Your task to perform on an android device: open app "Messages" (install if not already installed) and enter user name: "Hersey@inbox.com" and password: "facings" Image 0: 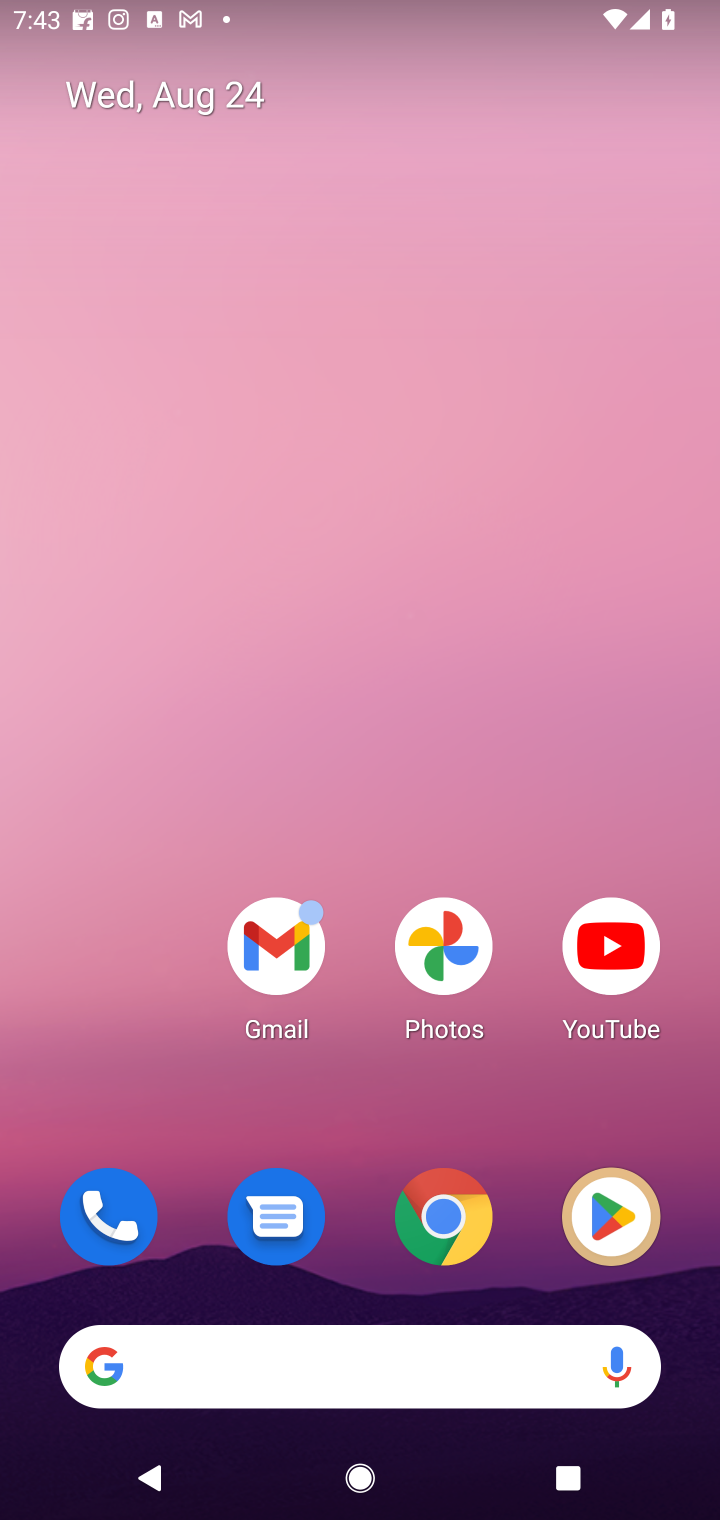
Step 0: click (618, 1189)
Your task to perform on an android device: open app "Messages" (install if not already installed) and enter user name: "Hersey@inbox.com" and password: "facings" Image 1: 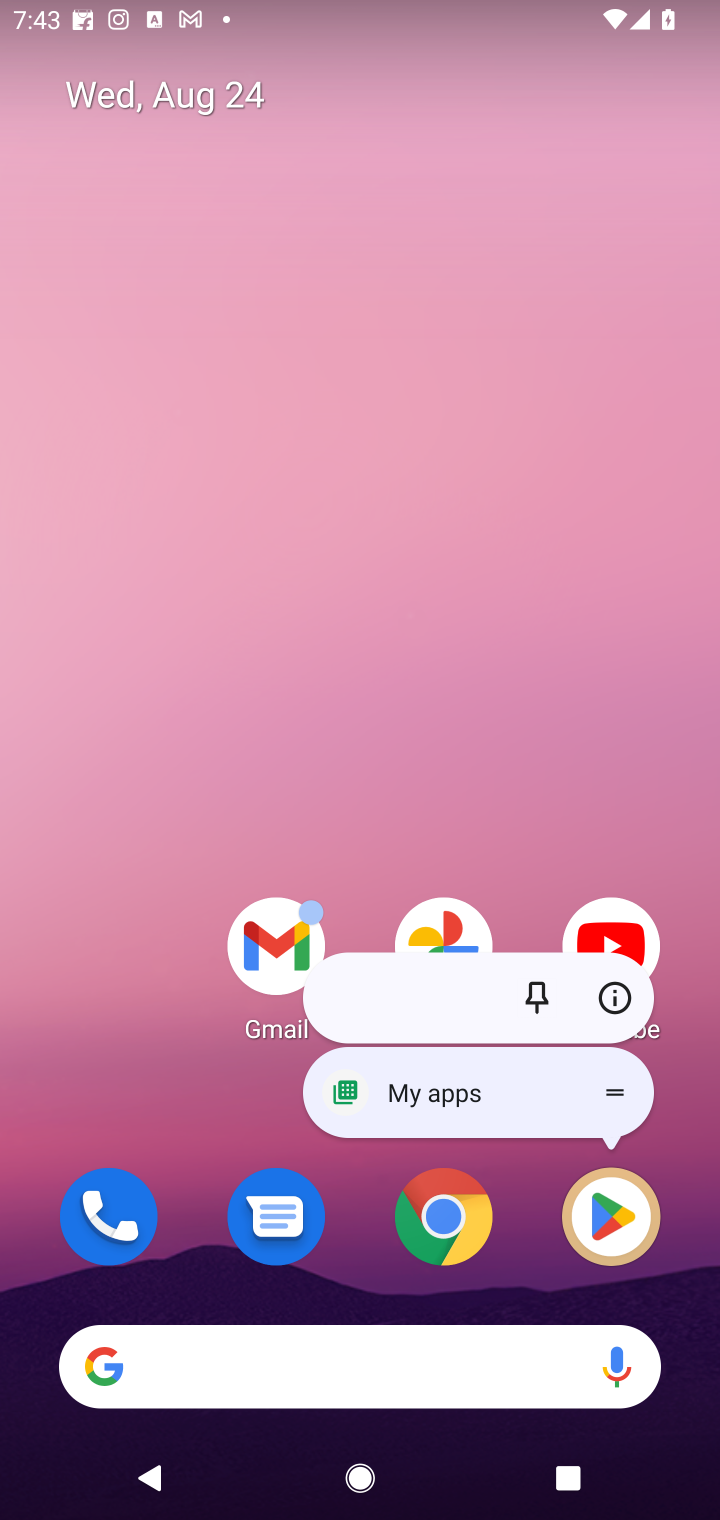
Step 1: click (584, 1218)
Your task to perform on an android device: open app "Messages" (install if not already installed) and enter user name: "Hersey@inbox.com" and password: "facings" Image 2: 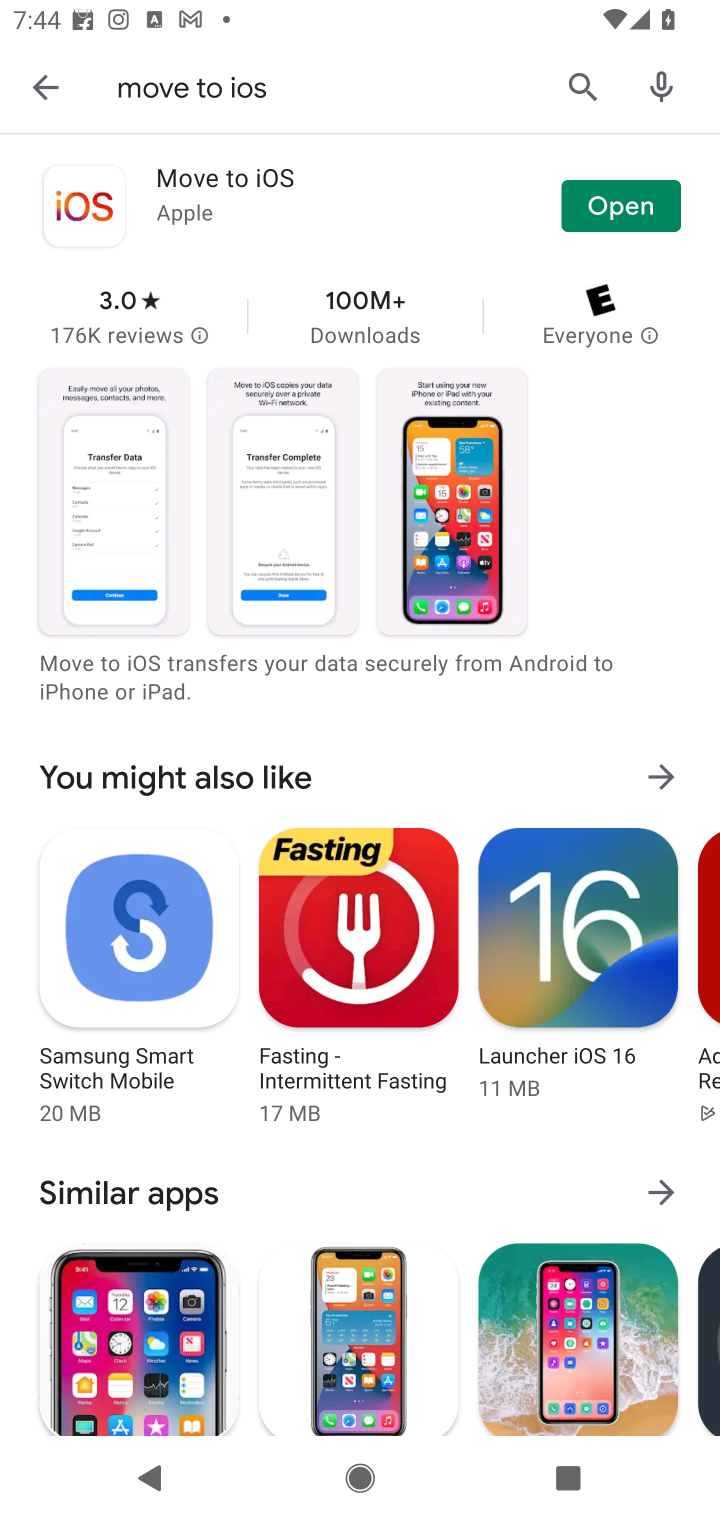
Step 2: click (587, 93)
Your task to perform on an android device: open app "Messages" (install if not already installed) and enter user name: "Hersey@inbox.com" and password: "facings" Image 3: 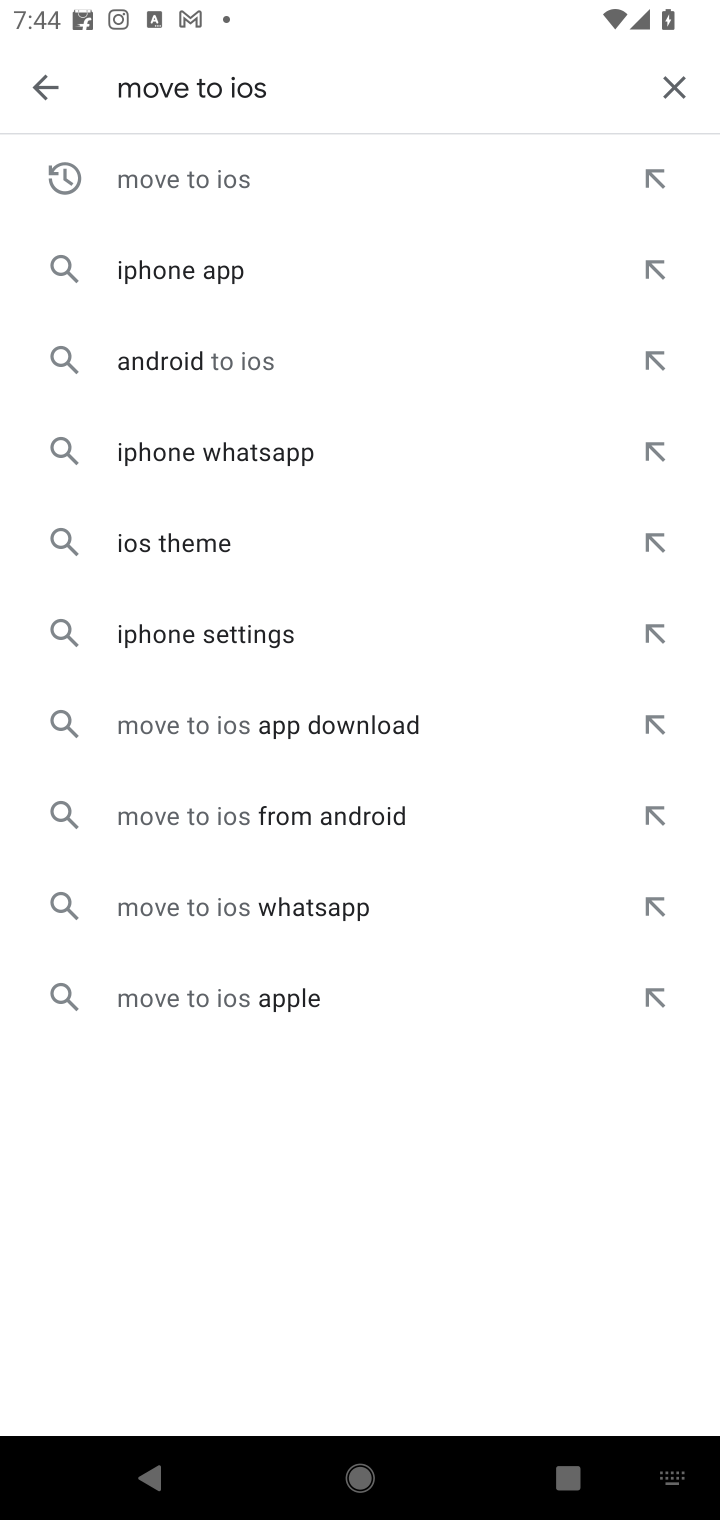
Step 3: click (670, 105)
Your task to perform on an android device: open app "Messages" (install if not already installed) and enter user name: "Hersey@inbox.com" and password: "facings" Image 4: 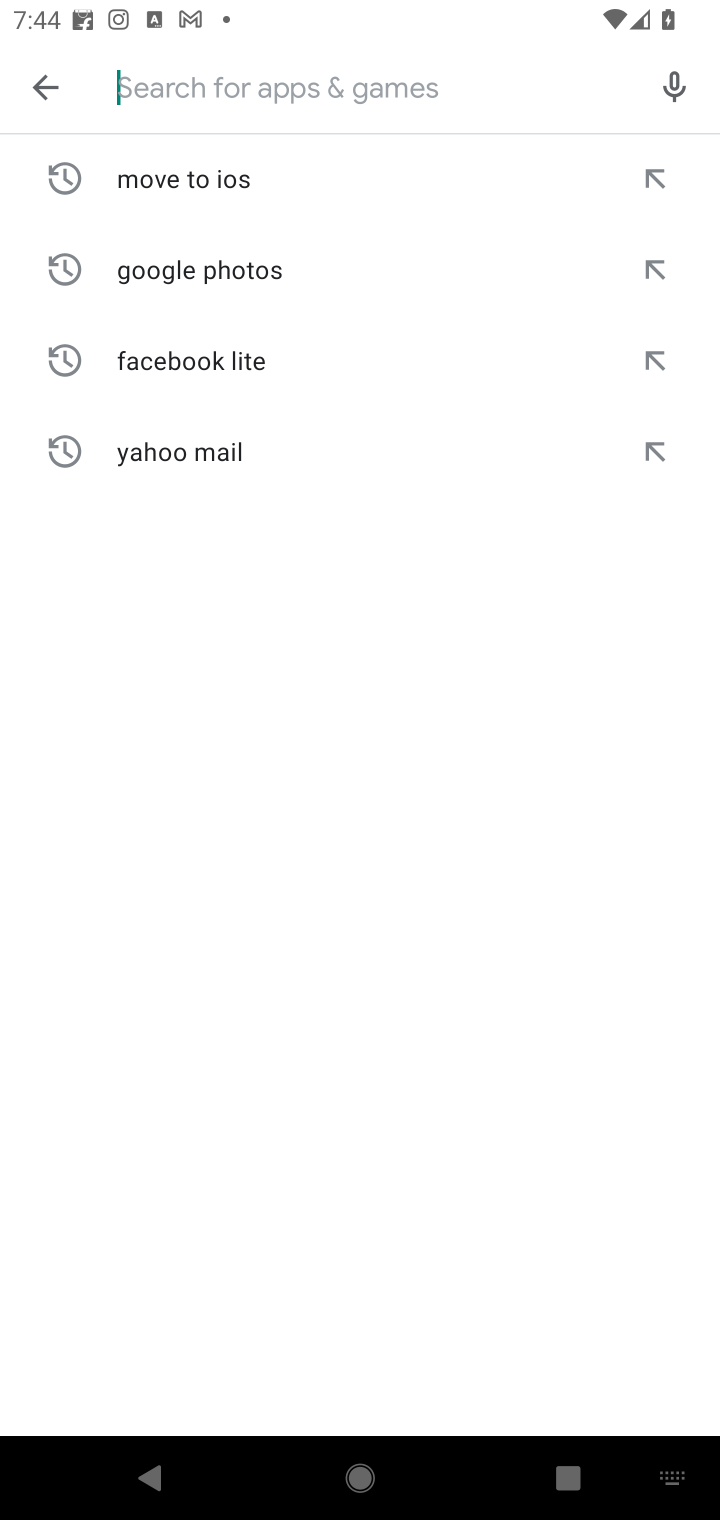
Step 4: type "Messages"
Your task to perform on an android device: open app "Messages" (install if not already installed) and enter user name: "Hersey@inbox.com" and password: "facings" Image 5: 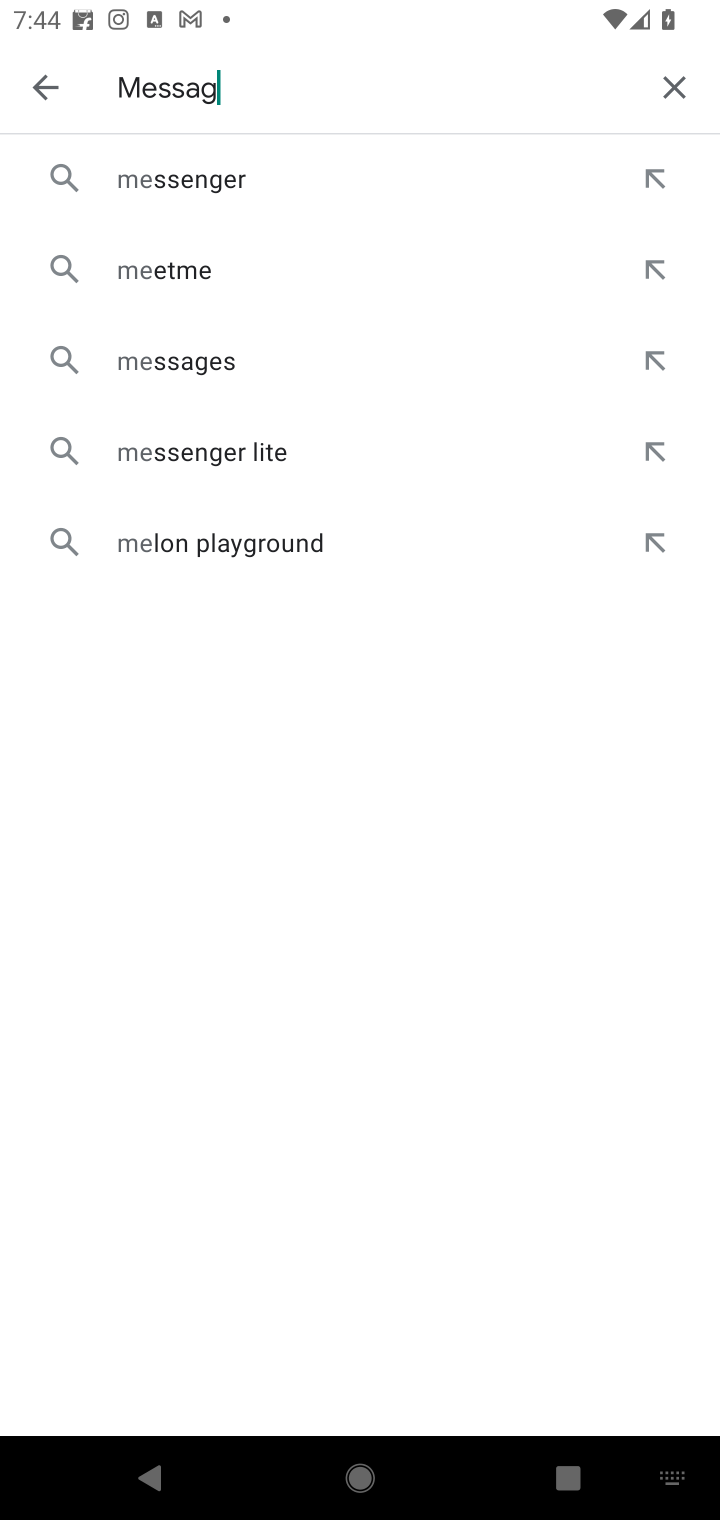
Step 5: type ""
Your task to perform on an android device: open app "Messages" (install if not already installed) and enter user name: "Hersey@inbox.com" and password: "facings" Image 6: 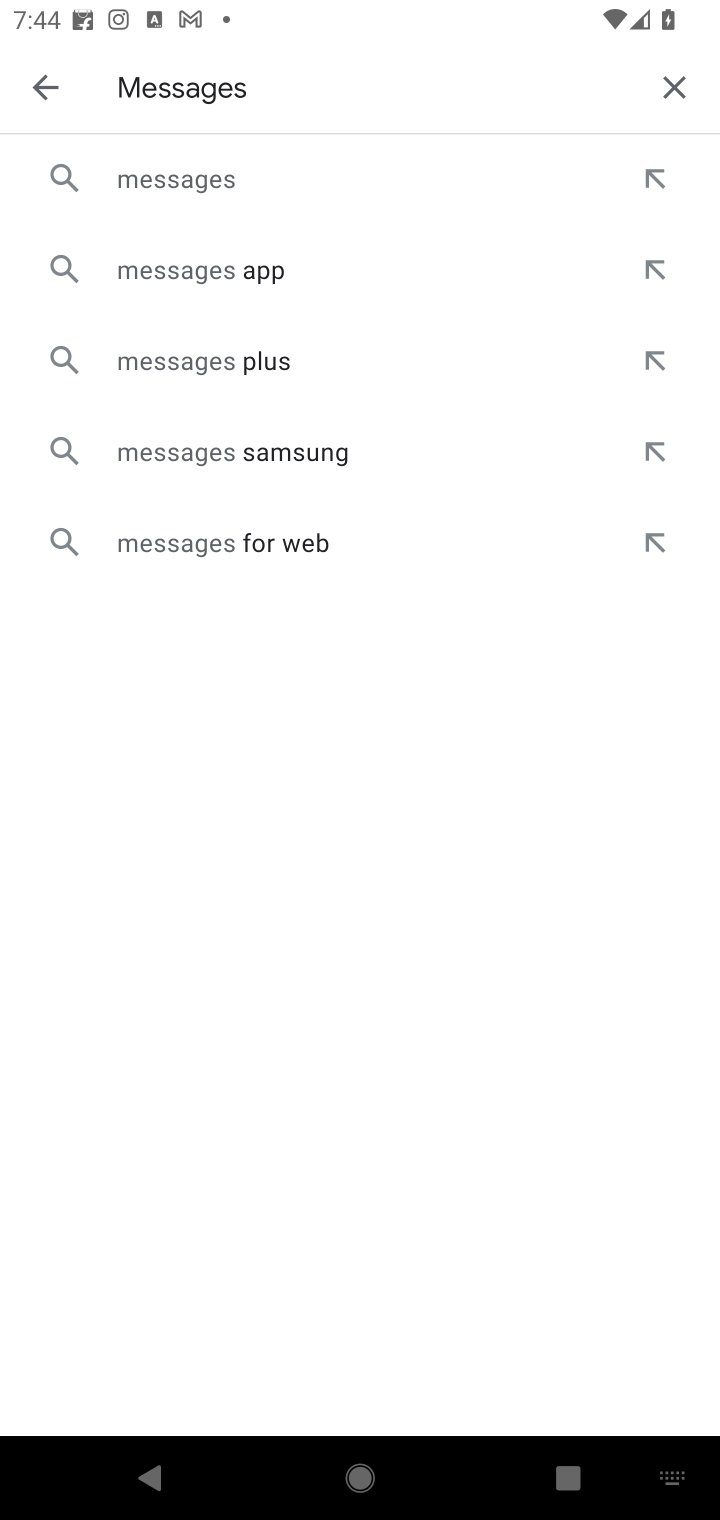
Step 6: click (228, 188)
Your task to perform on an android device: open app "Messages" (install if not already installed) and enter user name: "Hersey@inbox.com" and password: "facings" Image 7: 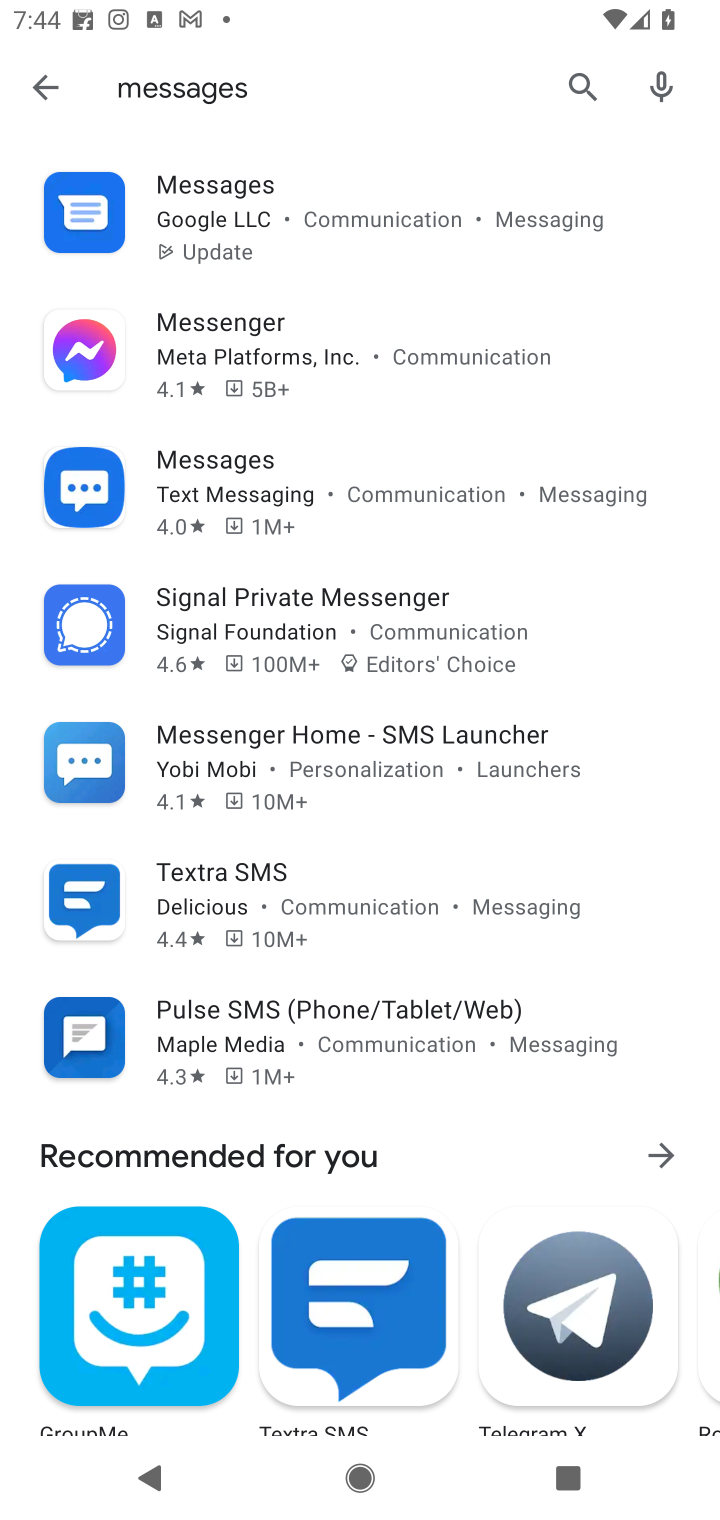
Step 7: click (235, 193)
Your task to perform on an android device: open app "Messages" (install if not already installed) and enter user name: "Hersey@inbox.com" and password: "facings" Image 8: 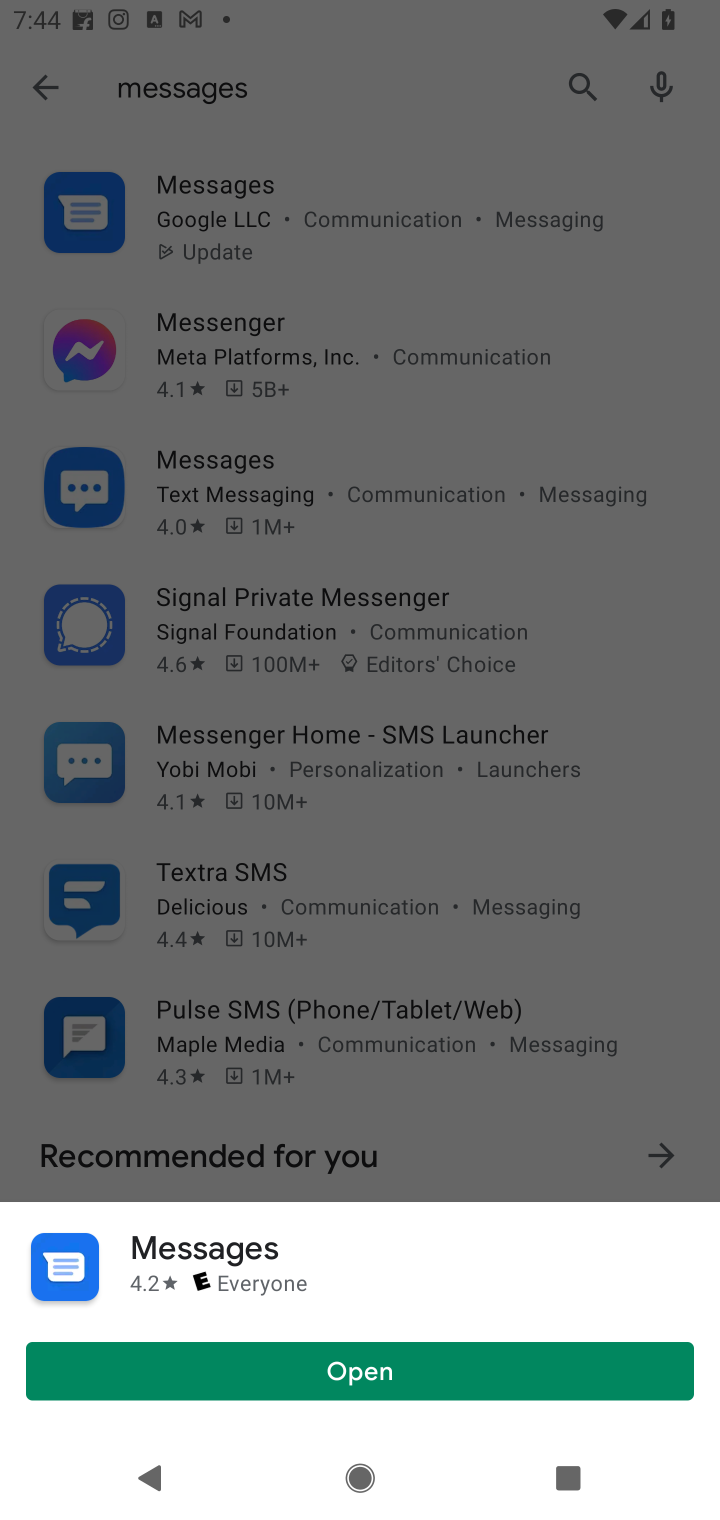
Step 8: click (453, 1385)
Your task to perform on an android device: open app "Messages" (install if not already installed) and enter user name: "Hersey@inbox.com" and password: "facings" Image 9: 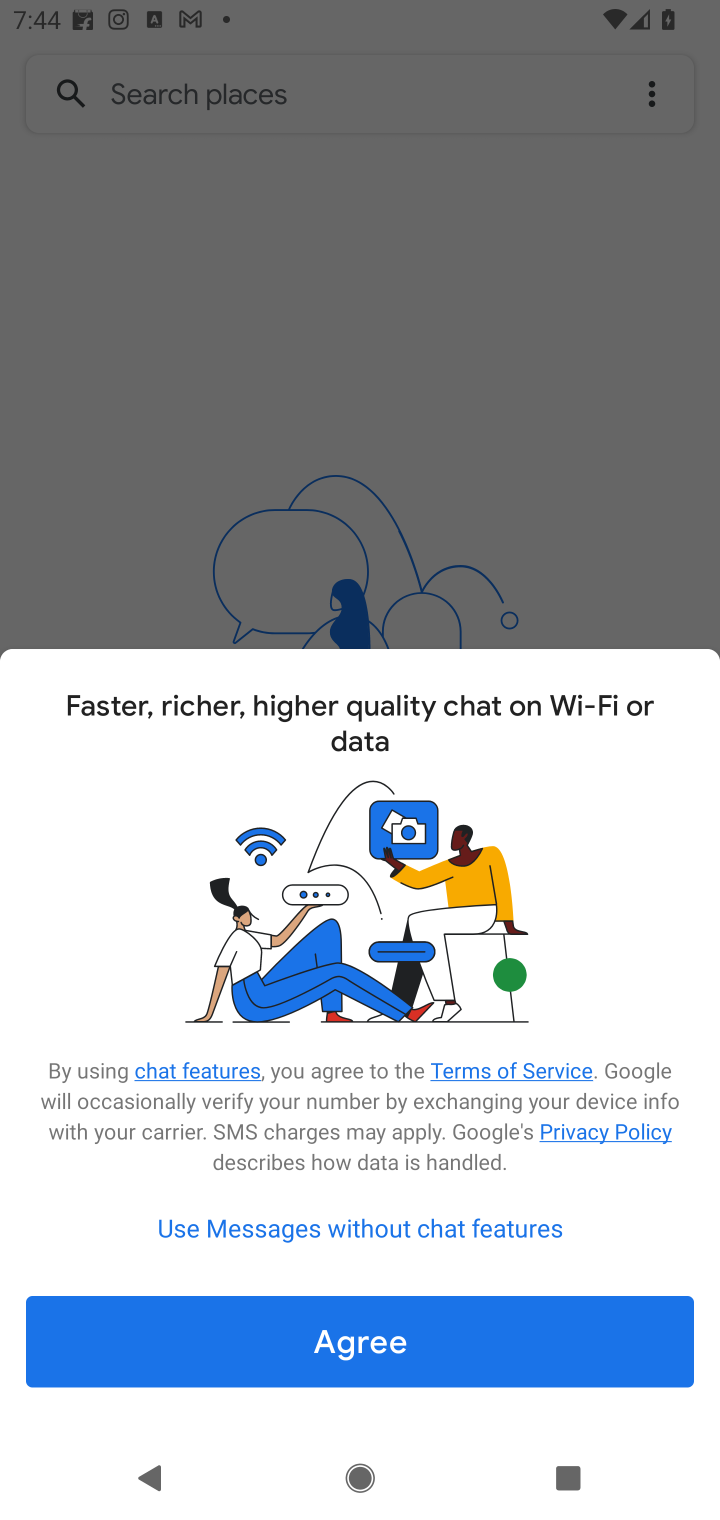
Step 9: task complete